Your task to perform on an android device: Open Yahoo.com Image 0: 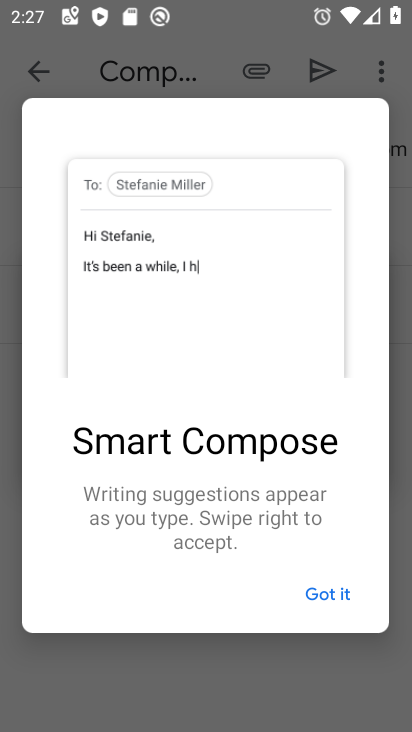
Step 0: press home button
Your task to perform on an android device: Open Yahoo.com Image 1: 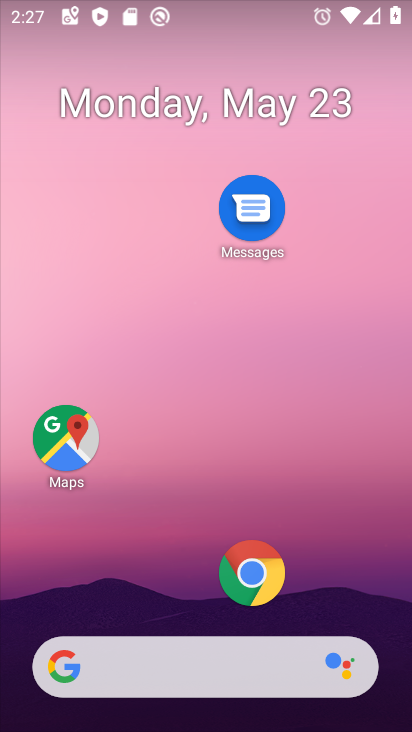
Step 1: drag from (311, 643) to (302, 0)
Your task to perform on an android device: Open Yahoo.com Image 2: 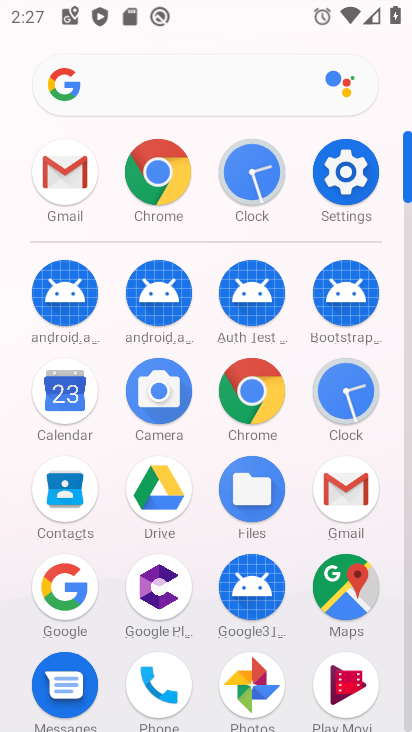
Step 2: click (255, 407)
Your task to perform on an android device: Open Yahoo.com Image 3: 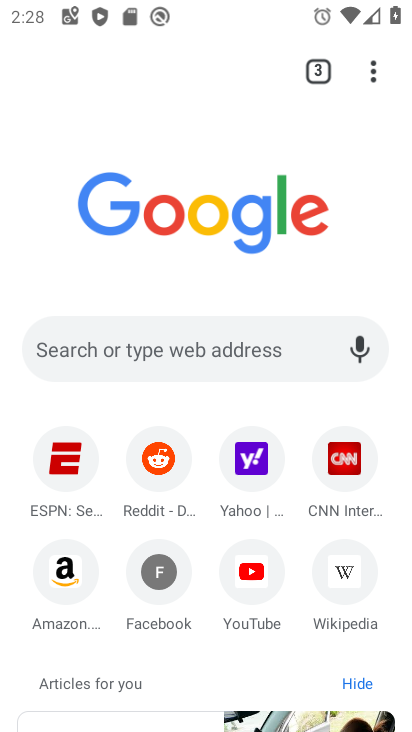
Step 3: click (239, 466)
Your task to perform on an android device: Open Yahoo.com Image 4: 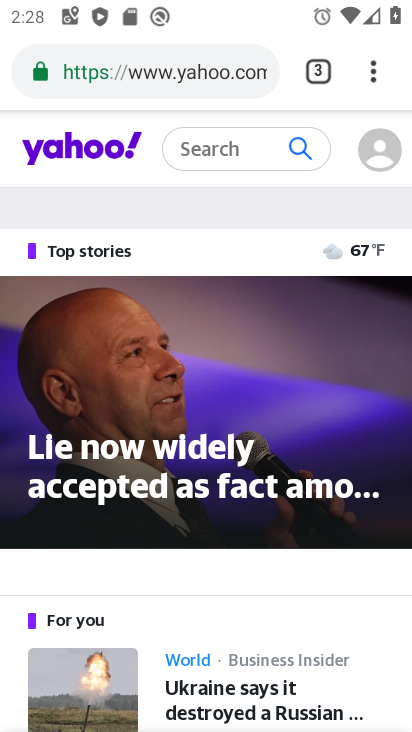
Step 4: task complete